Your task to perform on an android device: Open the Play Movies app and select the watchlist tab. Image 0: 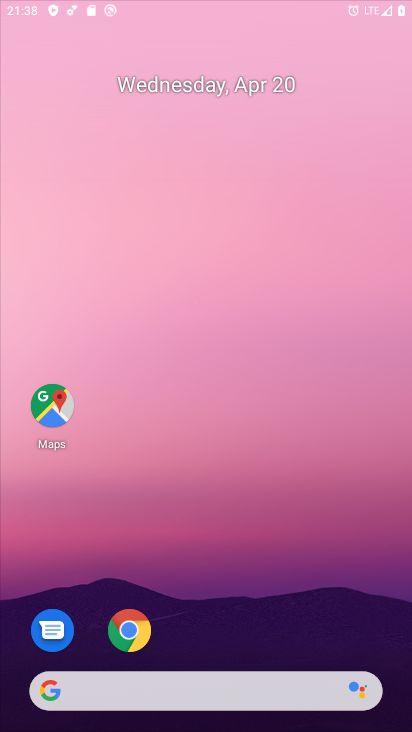
Step 0: click (186, 66)
Your task to perform on an android device: Open the Play Movies app and select the watchlist tab. Image 1: 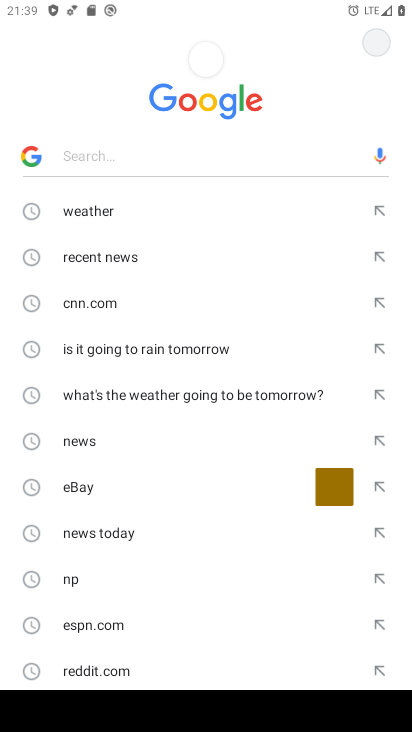
Step 1: press home button
Your task to perform on an android device: Open the Play Movies app and select the watchlist tab. Image 2: 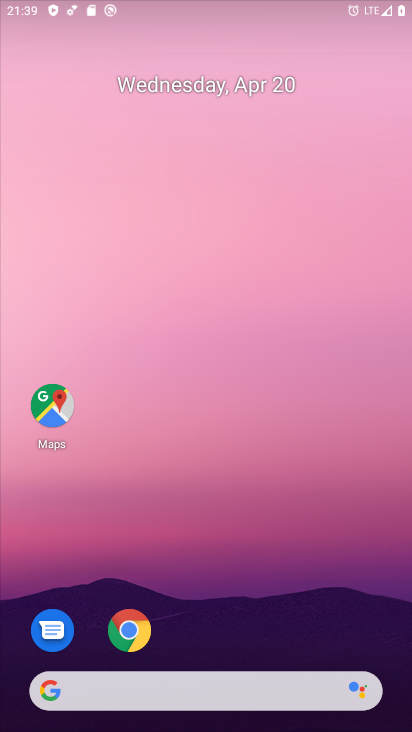
Step 2: drag from (259, 587) to (206, 152)
Your task to perform on an android device: Open the Play Movies app and select the watchlist tab. Image 3: 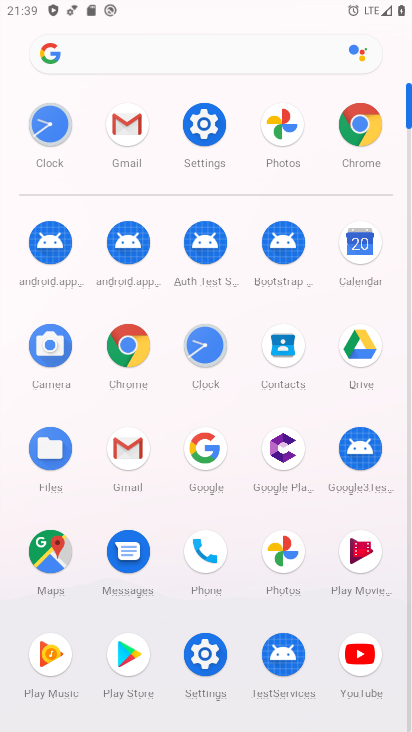
Step 3: click (352, 550)
Your task to perform on an android device: Open the Play Movies app and select the watchlist tab. Image 4: 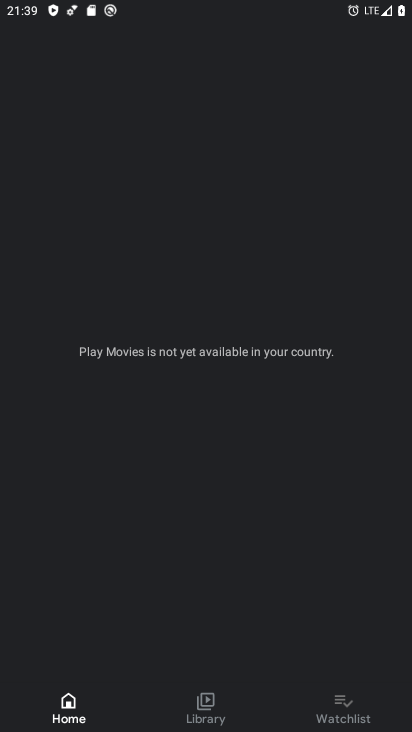
Step 4: click (347, 696)
Your task to perform on an android device: Open the Play Movies app and select the watchlist tab. Image 5: 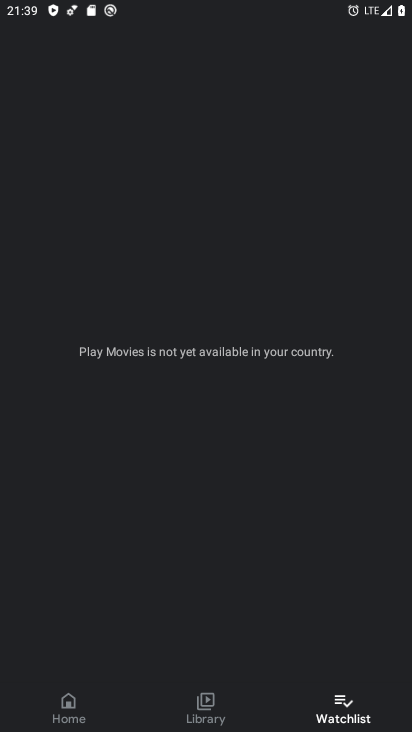
Step 5: task complete